Your task to perform on an android device: manage bookmarks in the chrome app Image 0: 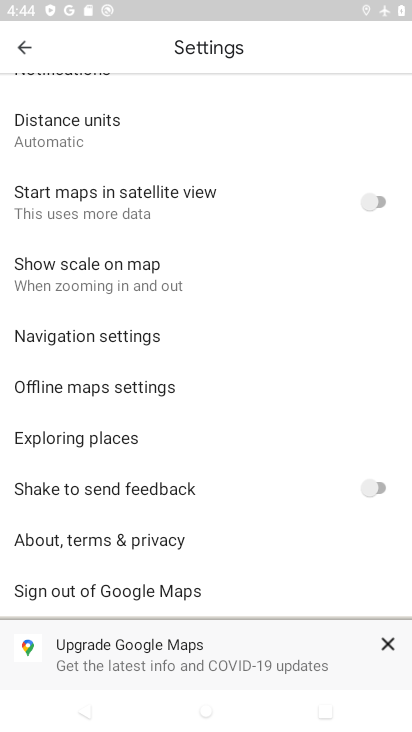
Step 0: press home button
Your task to perform on an android device: manage bookmarks in the chrome app Image 1: 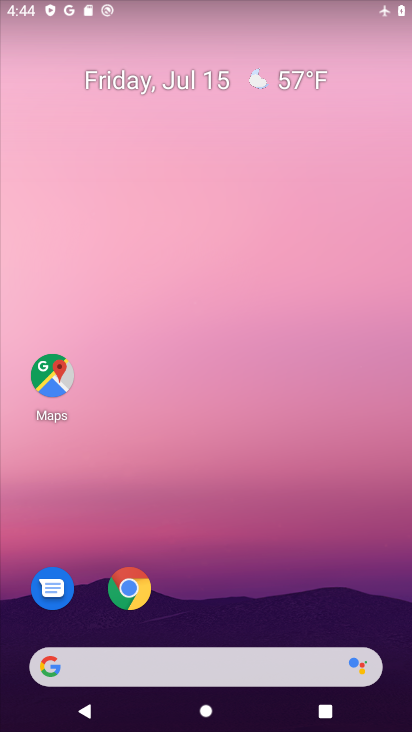
Step 1: drag from (221, 624) to (266, 135)
Your task to perform on an android device: manage bookmarks in the chrome app Image 2: 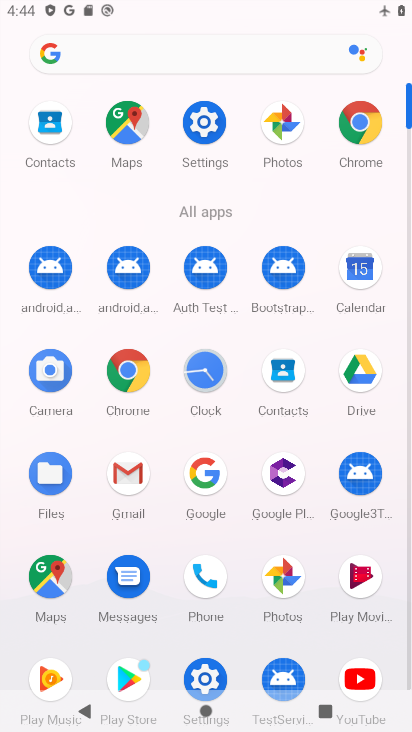
Step 2: click (123, 362)
Your task to perform on an android device: manage bookmarks in the chrome app Image 3: 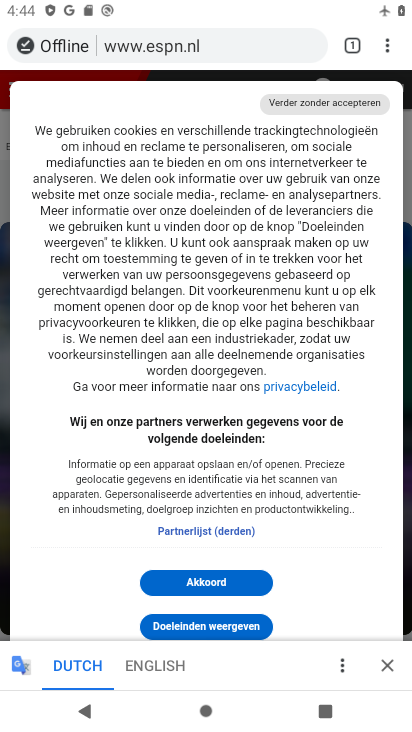
Step 3: drag from (351, 1) to (285, 464)
Your task to perform on an android device: manage bookmarks in the chrome app Image 4: 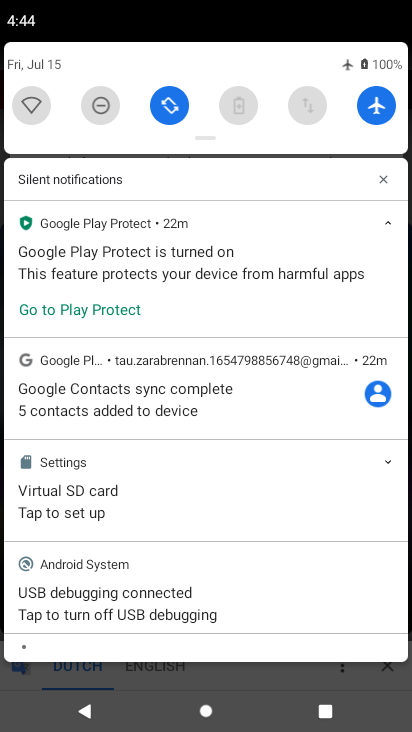
Step 4: click (380, 102)
Your task to perform on an android device: manage bookmarks in the chrome app Image 5: 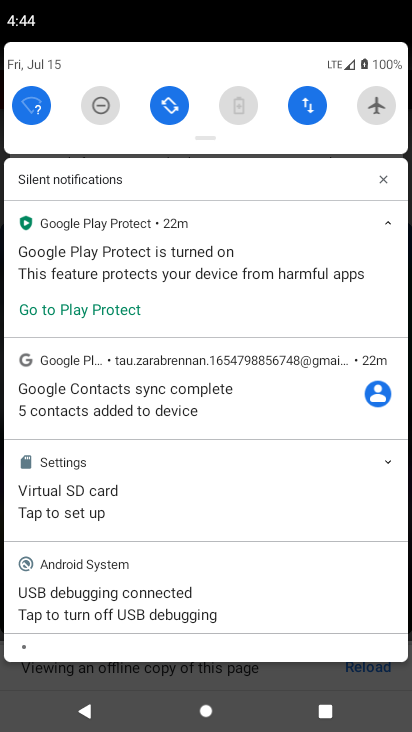
Step 5: click (373, 682)
Your task to perform on an android device: manage bookmarks in the chrome app Image 6: 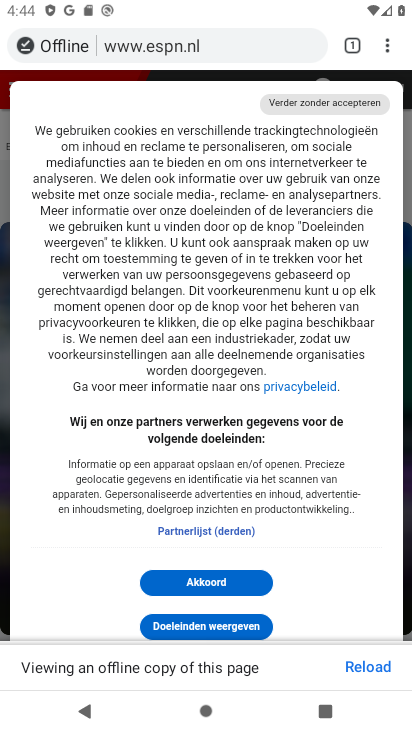
Step 6: drag from (382, 50) to (285, 229)
Your task to perform on an android device: manage bookmarks in the chrome app Image 7: 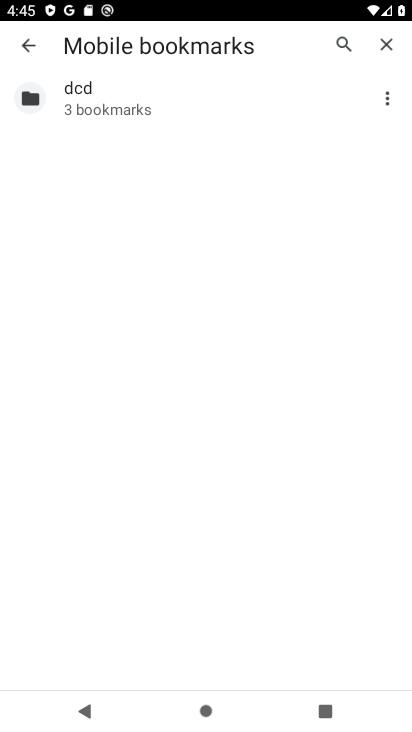
Step 7: click (88, 101)
Your task to perform on an android device: manage bookmarks in the chrome app Image 8: 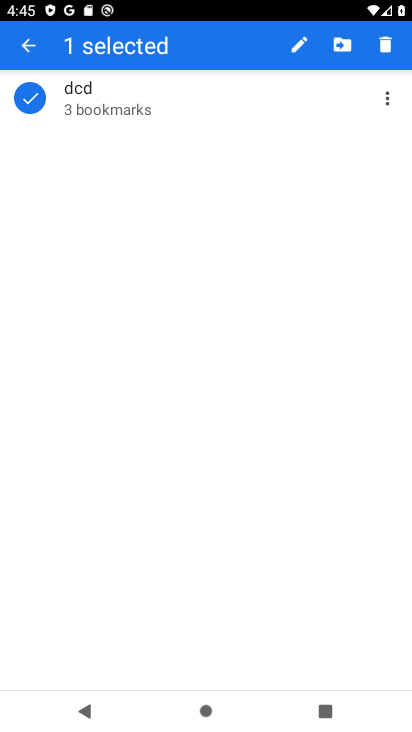
Step 8: click (347, 43)
Your task to perform on an android device: manage bookmarks in the chrome app Image 9: 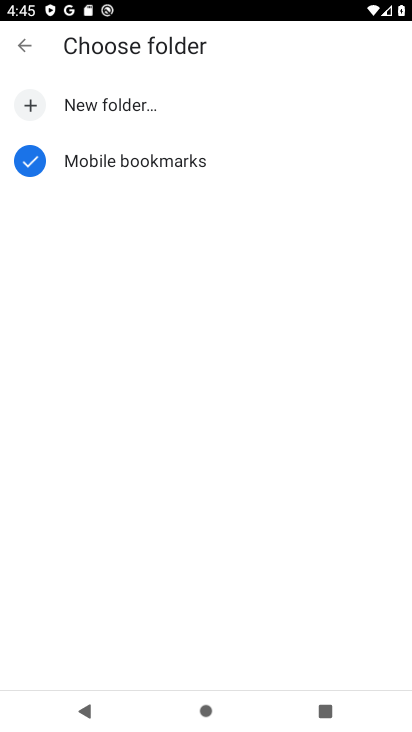
Step 9: click (100, 108)
Your task to perform on an android device: manage bookmarks in the chrome app Image 10: 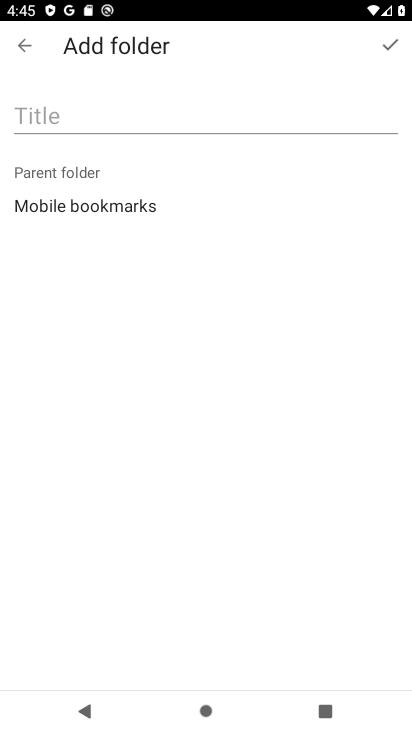
Step 10: click (239, 109)
Your task to perform on an android device: manage bookmarks in the chrome app Image 11: 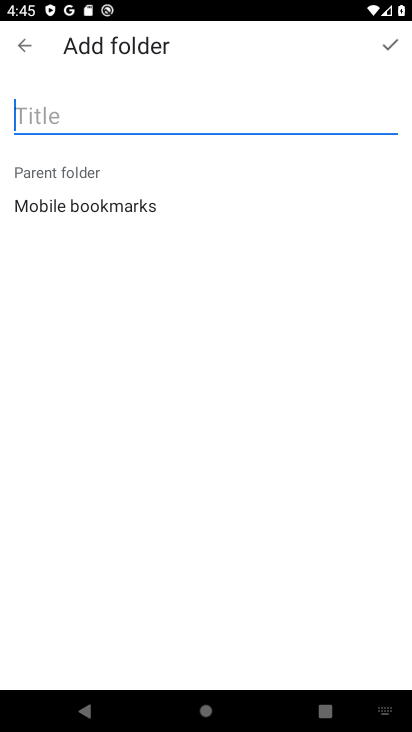
Step 11: type "rrr"
Your task to perform on an android device: manage bookmarks in the chrome app Image 12: 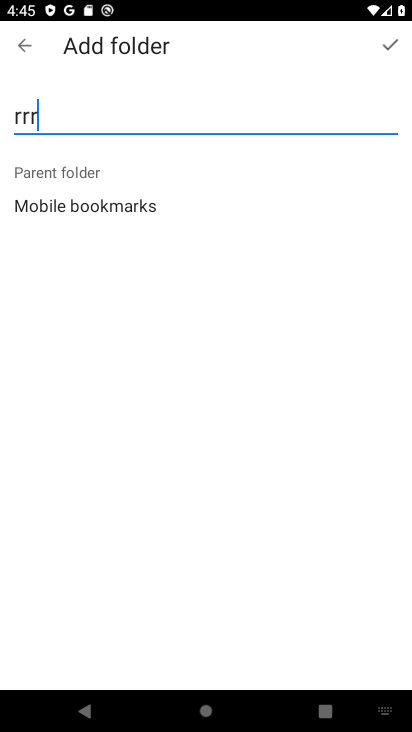
Step 12: type ""
Your task to perform on an android device: manage bookmarks in the chrome app Image 13: 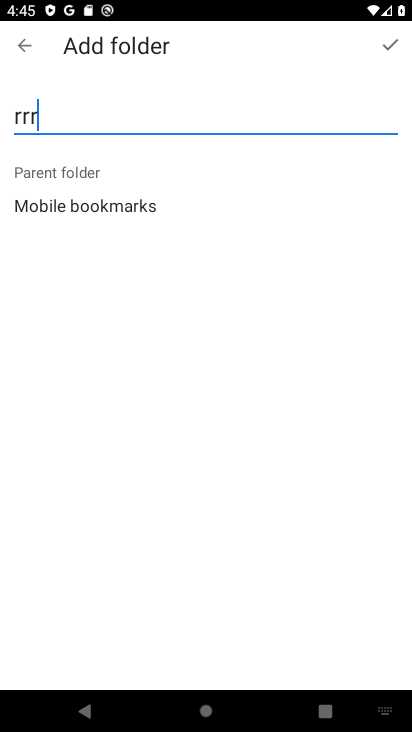
Step 13: click (389, 34)
Your task to perform on an android device: manage bookmarks in the chrome app Image 14: 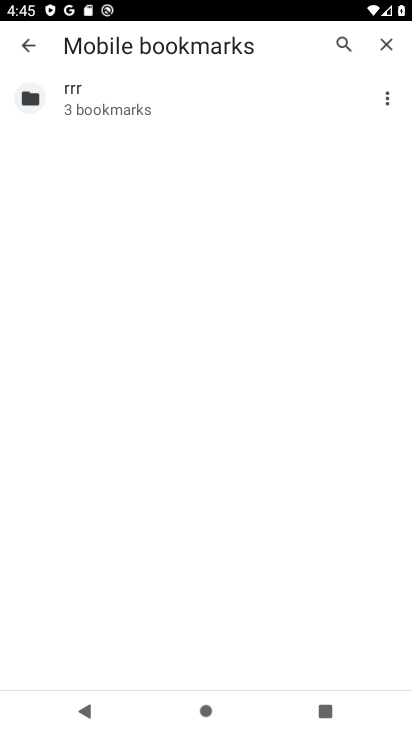
Step 14: task complete